Your task to perform on an android device: toggle location history Image 0: 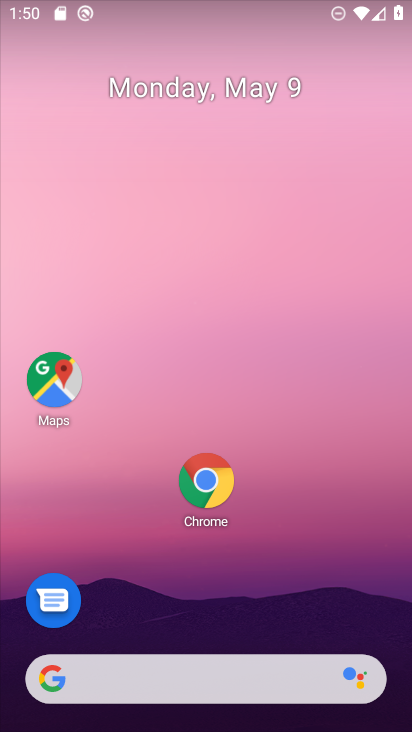
Step 0: press home button
Your task to perform on an android device: toggle location history Image 1: 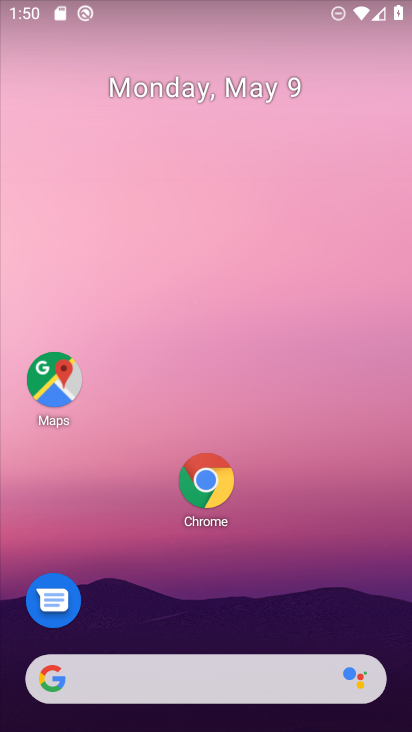
Step 1: drag from (133, 681) to (304, 73)
Your task to perform on an android device: toggle location history Image 2: 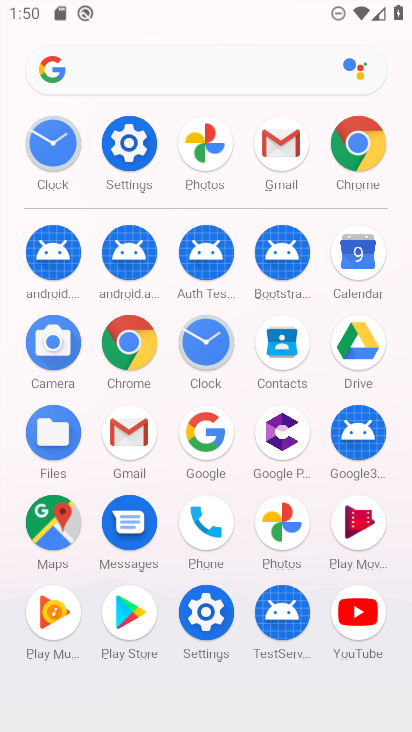
Step 2: click (60, 538)
Your task to perform on an android device: toggle location history Image 3: 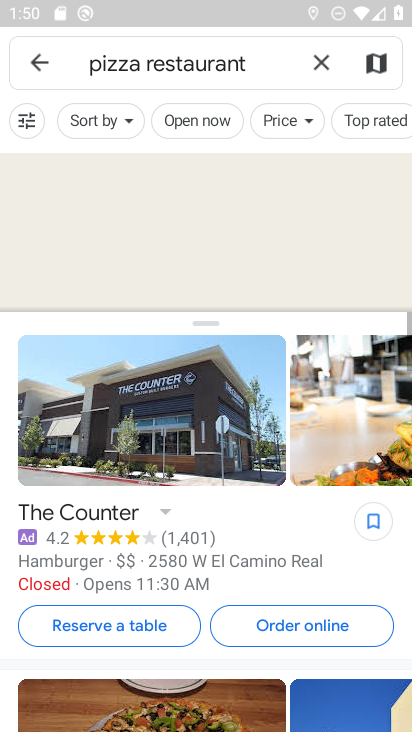
Step 3: click (35, 65)
Your task to perform on an android device: toggle location history Image 4: 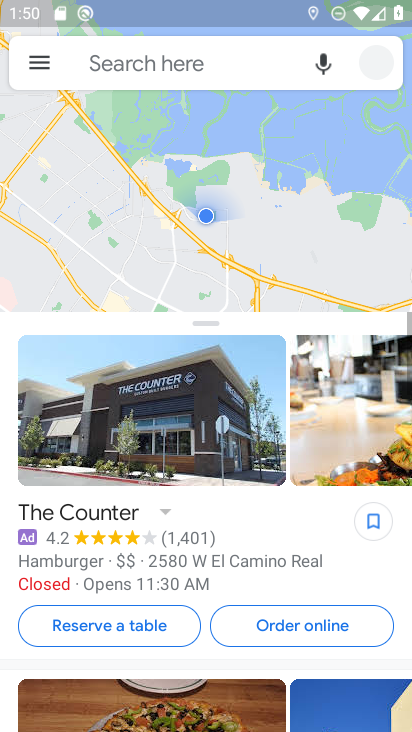
Step 4: click (40, 65)
Your task to perform on an android device: toggle location history Image 5: 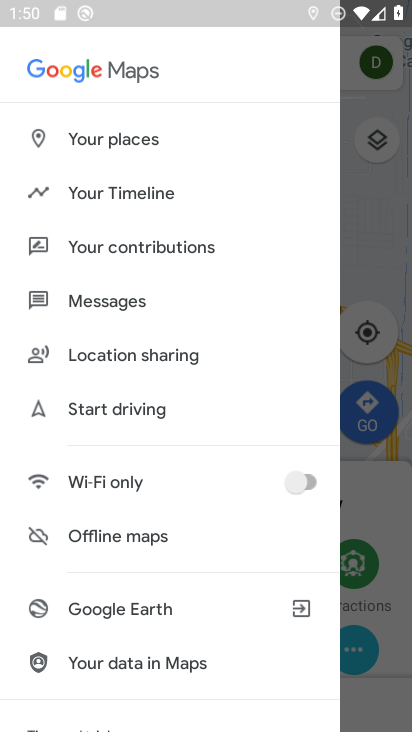
Step 5: click (150, 191)
Your task to perform on an android device: toggle location history Image 6: 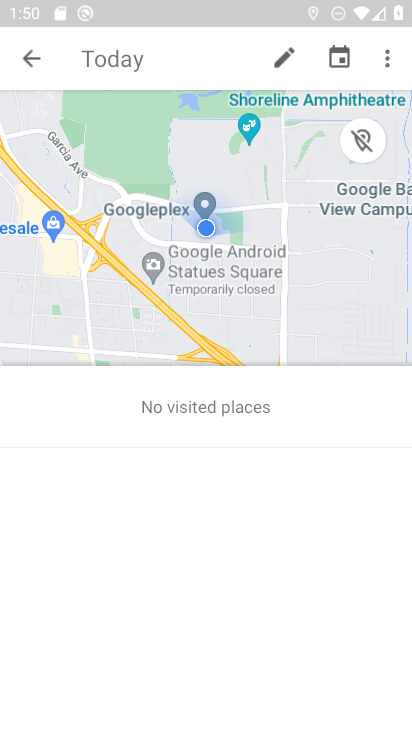
Step 6: click (388, 65)
Your task to perform on an android device: toggle location history Image 7: 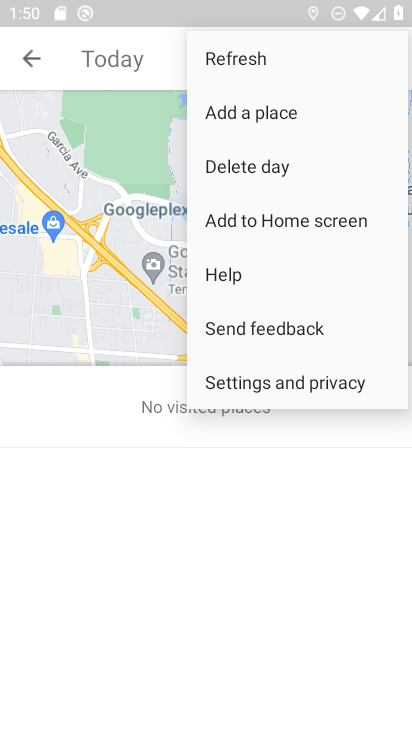
Step 7: click (267, 380)
Your task to perform on an android device: toggle location history Image 8: 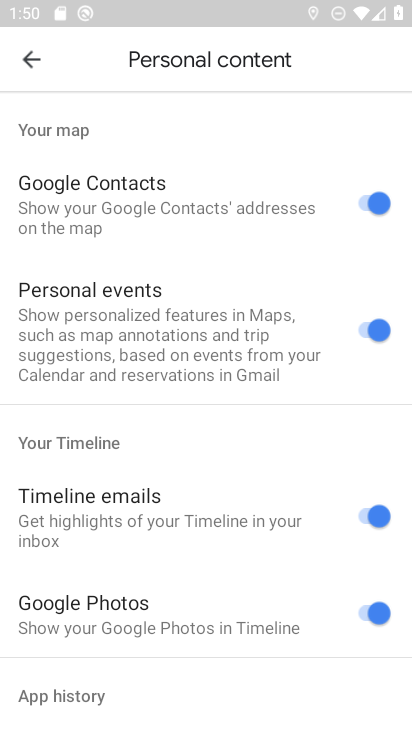
Step 8: drag from (156, 673) to (332, 64)
Your task to perform on an android device: toggle location history Image 9: 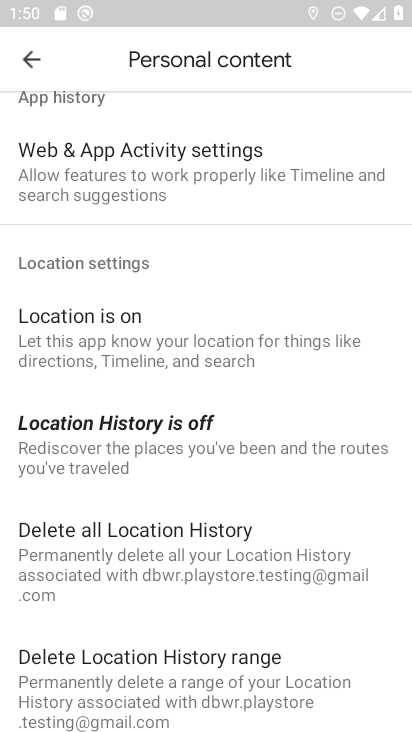
Step 9: click (145, 439)
Your task to perform on an android device: toggle location history Image 10: 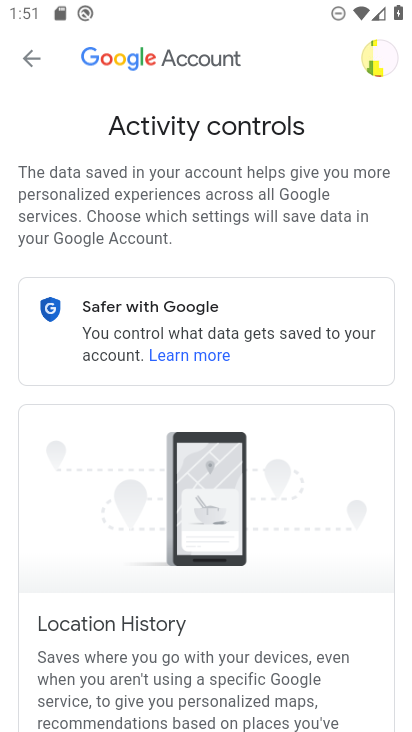
Step 10: drag from (234, 639) to (364, 201)
Your task to perform on an android device: toggle location history Image 11: 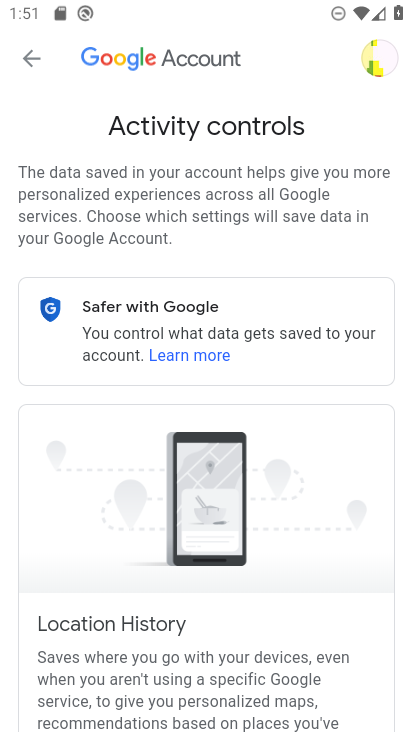
Step 11: drag from (209, 631) to (352, 84)
Your task to perform on an android device: toggle location history Image 12: 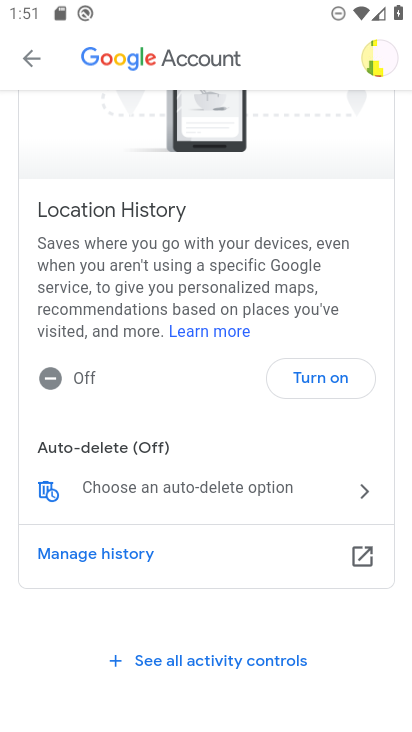
Step 12: click (325, 382)
Your task to perform on an android device: toggle location history Image 13: 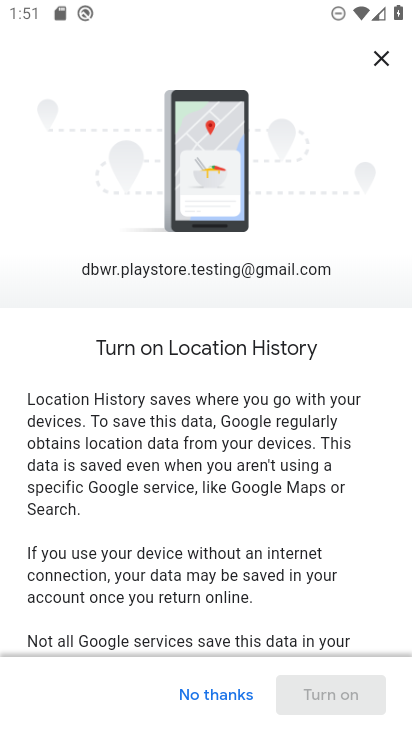
Step 13: drag from (249, 587) to (330, 71)
Your task to perform on an android device: toggle location history Image 14: 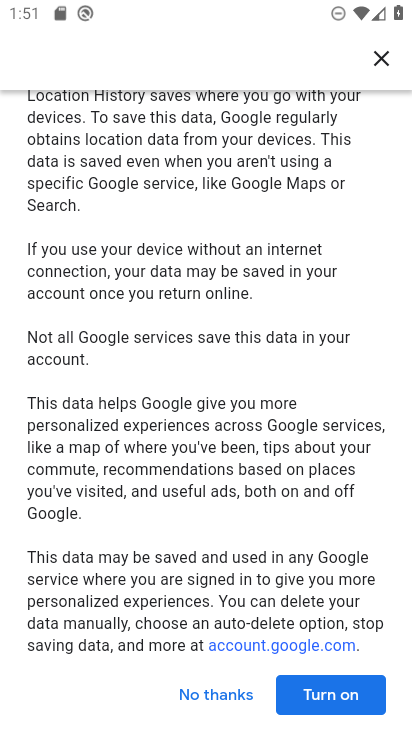
Step 14: click (332, 700)
Your task to perform on an android device: toggle location history Image 15: 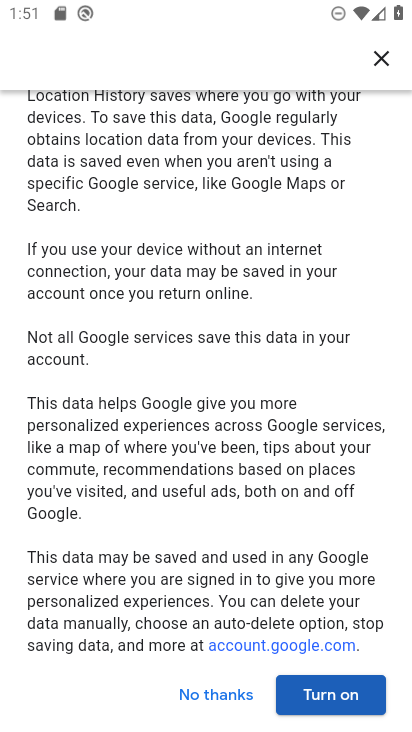
Step 15: click (338, 695)
Your task to perform on an android device: toggle location history Image 16: 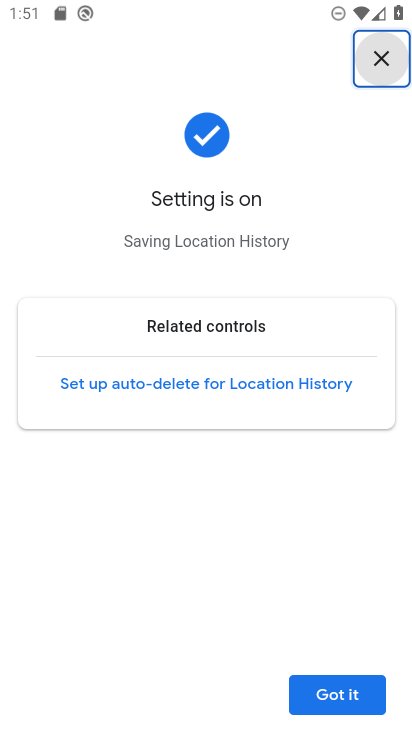
Step 16: click (348, 692)
Your task to perform on an android device: toggle location history Image 17: 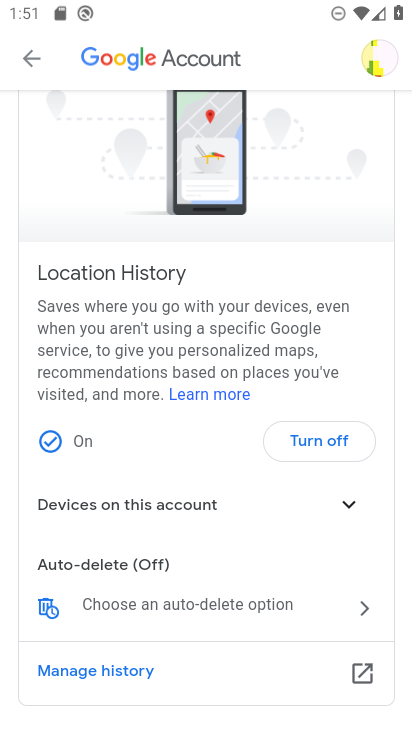
Step 17: task complete